Your task to perform on an android device: Open Maps and search for coffee Image 0: 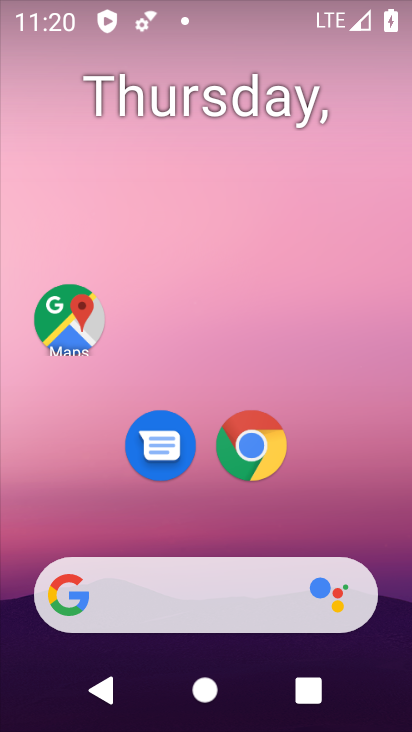
Step 0: click (82, 314)
Your task to perform on an android device: Open Maps and search for coffee Image 1: 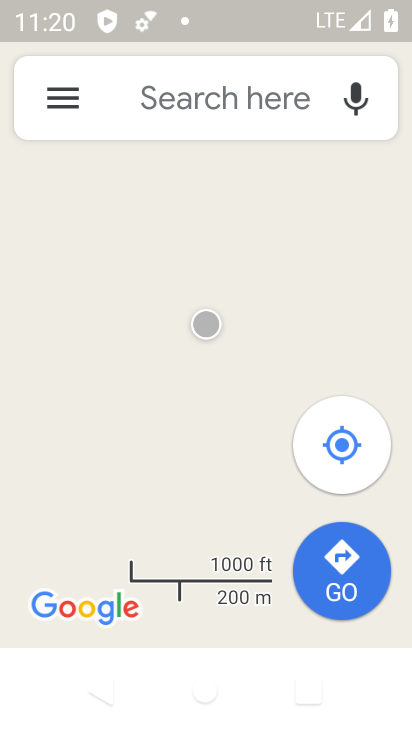
Step 1: click (239, 111)
Your task to perform on an android device: Open Maps and search for coffee Image 2: 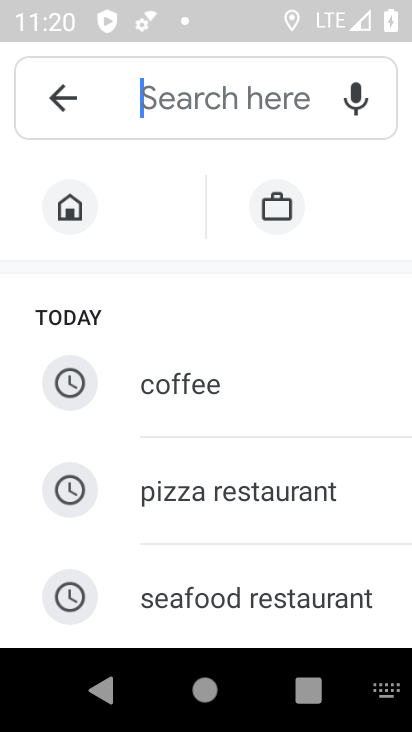
Step 2: type "Coffee "
Your task to perform on an android device: Open Maps and search for coffee Image 3: 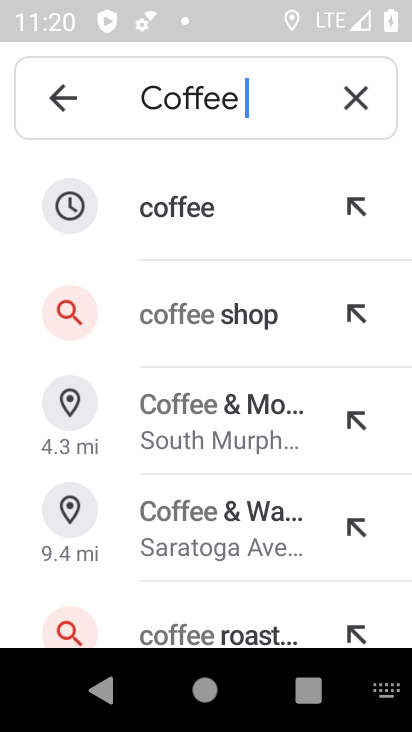
Step 3: click (199, 194)
Your task to perform on an android device: Open Maps and search for coffee Image 4: 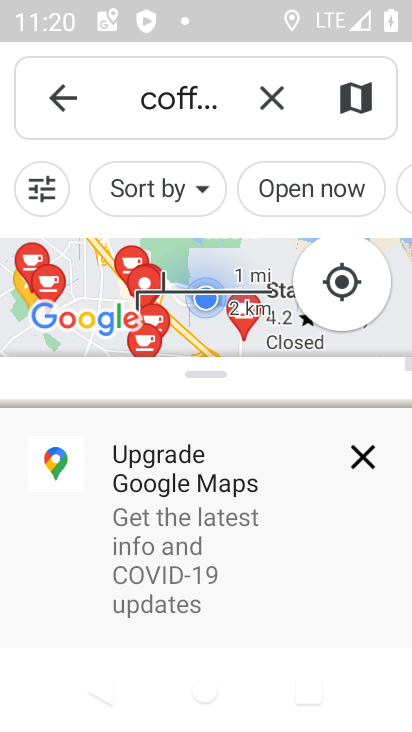
Step 4: click (364, 450)
Your task to perform on an android device: Open Maps and search for coffee Image 5: 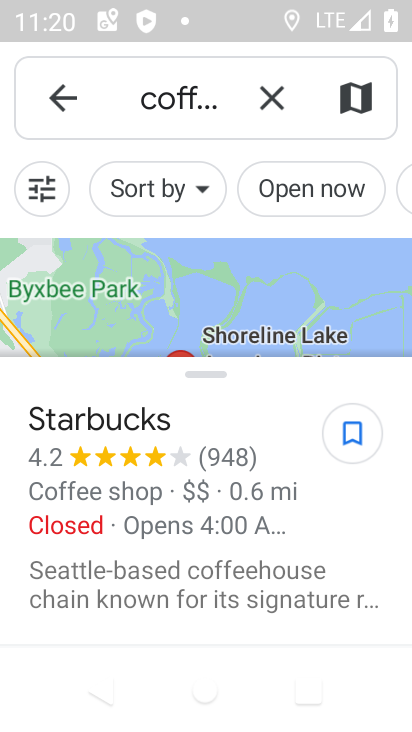
Step 5: task complete